Your task to perform on an android device: Open calendar and show me the first week of next month Image 0: 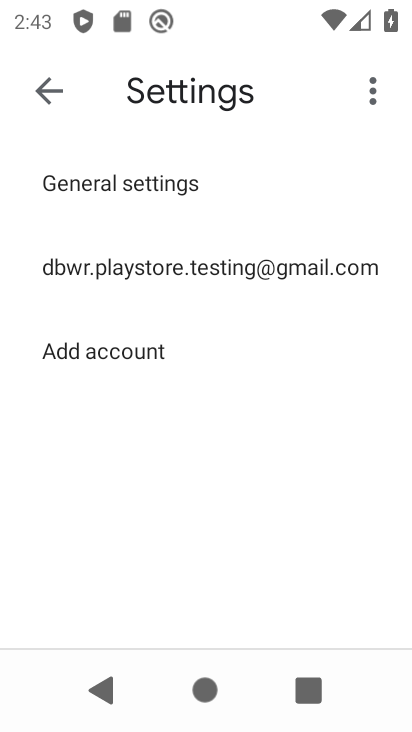
Step 0: press home button
Your task to perform on an android device: Open calendar and show me the first week of next month Image 1: 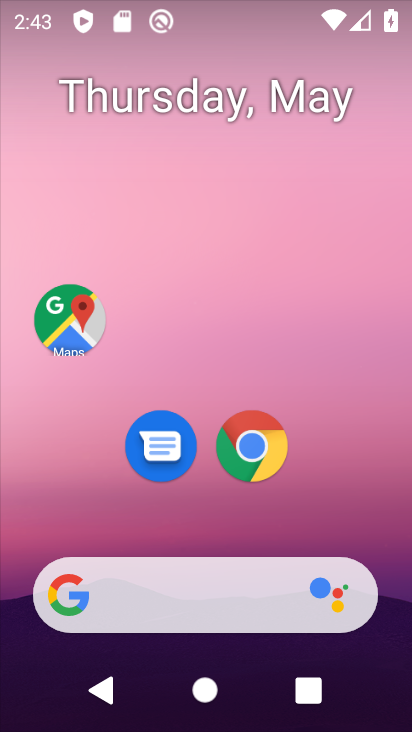
Step 1: drag from (330, 518) to (326, 2)
Your task to perform on an android device: Open calendar and show me the first week of next month Image 2: 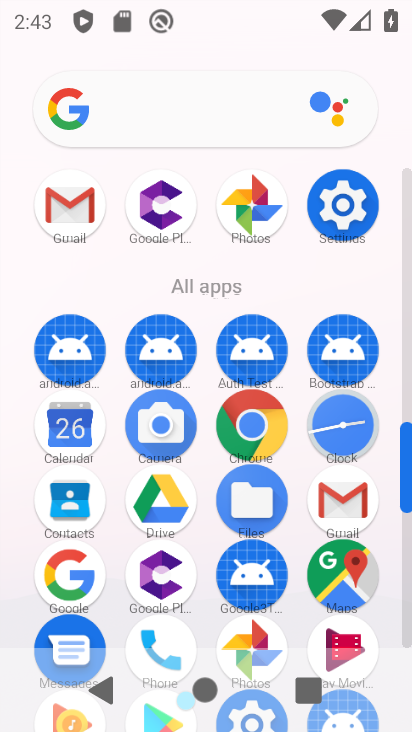
Step 2: click (57, 430)
Your task to perform on an android device: Open calendar and show me the first week of next month Image 3: 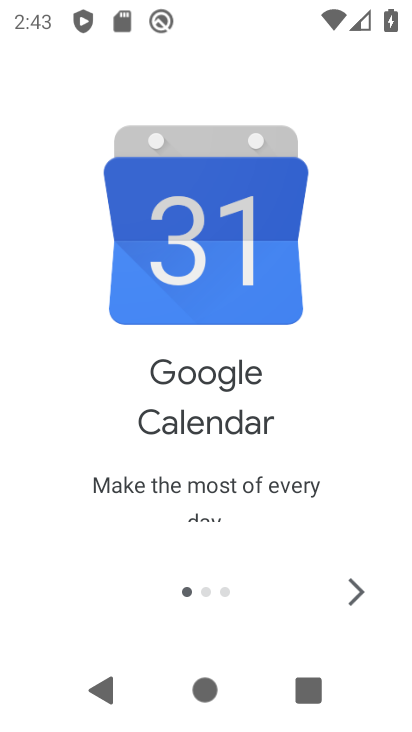
Step 3: click (357, 593)
Your task to perform on an android device: Open calendar and show me the first week of next month Image 4: 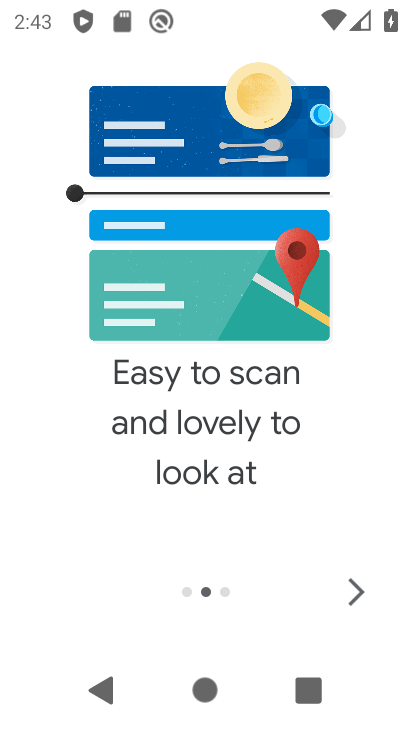
Step 4: click (357, 593)
Your task to perform on an android device: Open calendar and show me the first week of next month Image 5: 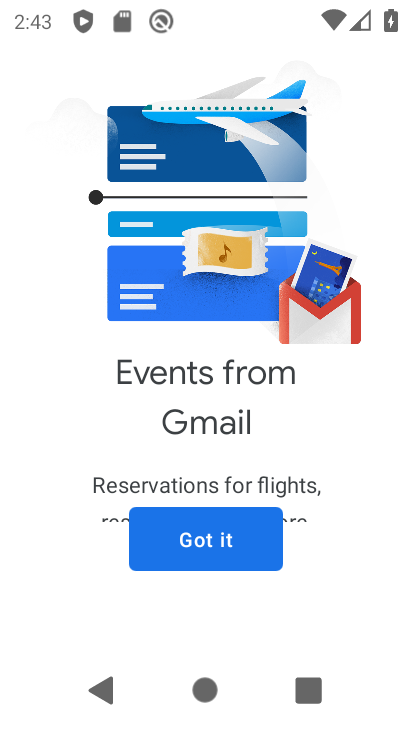
Step 5: click (183, 548)
Your task to perform on an android device: Open calendar and show me the first week of next month Image 6: 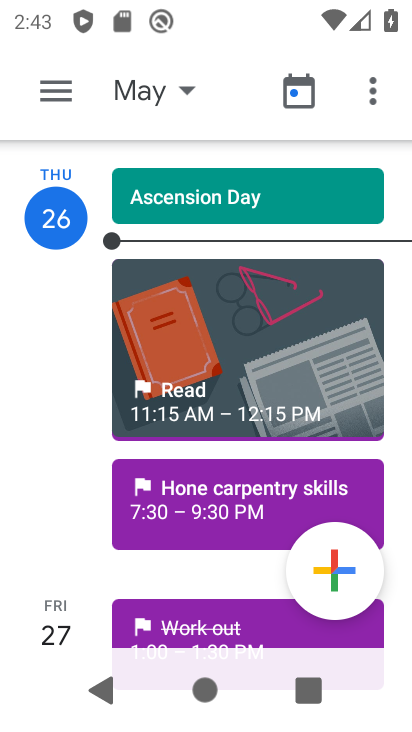
Step 6: click (190, 89)
Your task to perform on an android device: Open calendar and show me the first week of next month Image 7: 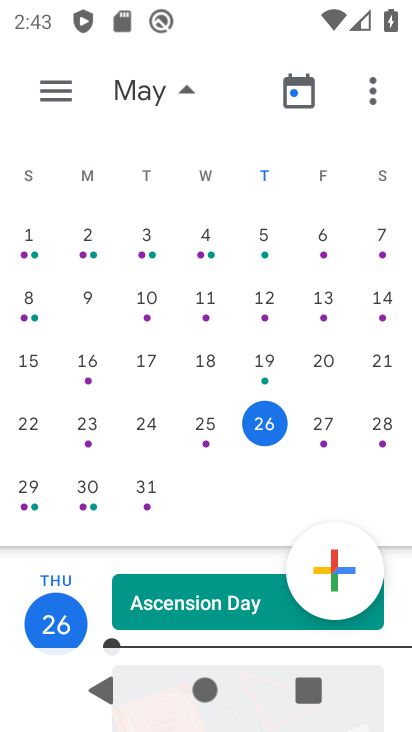
Step 7: drag from (375, 333) to (33, 229)
Your task to perform on an android device: Open calendar and show me the first week of next month Image 8: 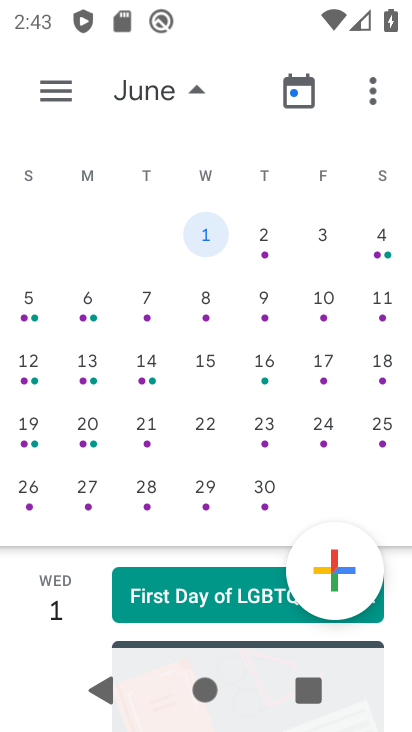
Step 8: click (49, 90)
Your task to perform on an android device: Open calendar and show me the first week of next month Image 9: 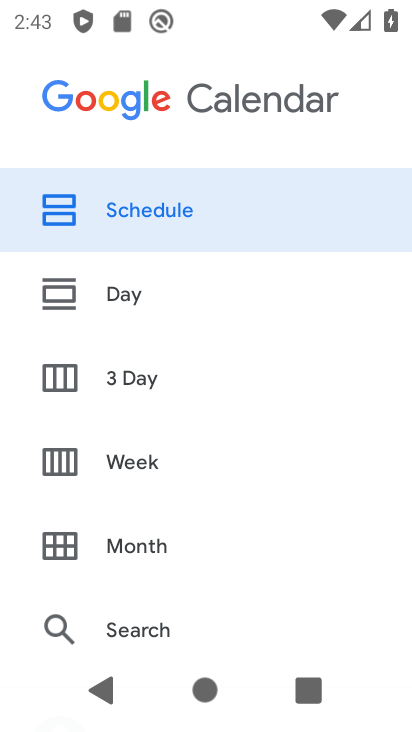
Step 9: click (118, 462)
Your task to perform on an android device: Open calendar and show me the first week of next month Image 10: 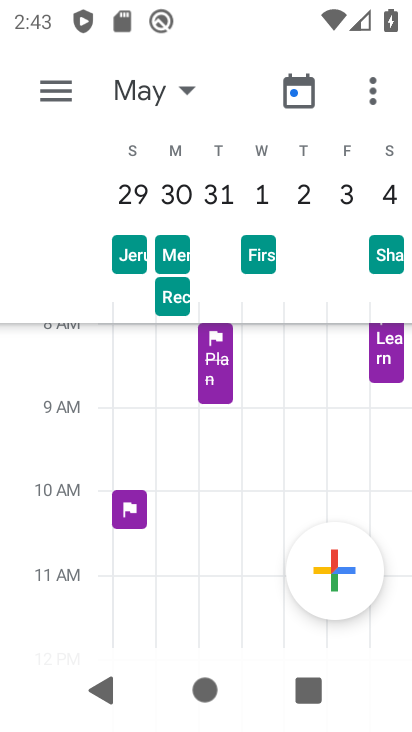
Step 10: task complete